Your task to perform on an android device: set default search engine in the chrome app Image 0: 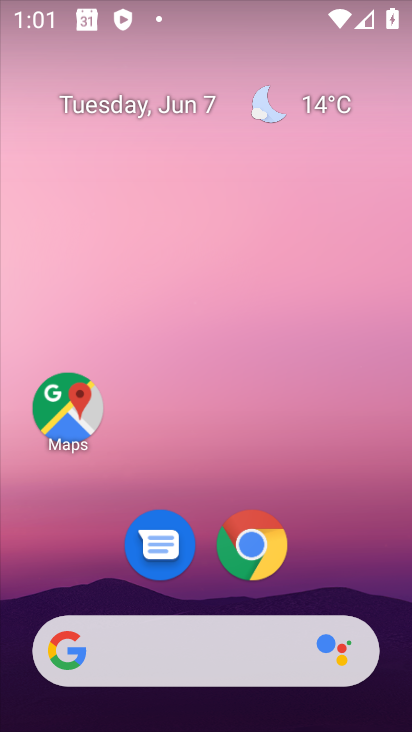
Step 0: drag from (351, 537) to (374, 219)
Your task to perform on an android device: set default search engine in the chrome app Image 1: 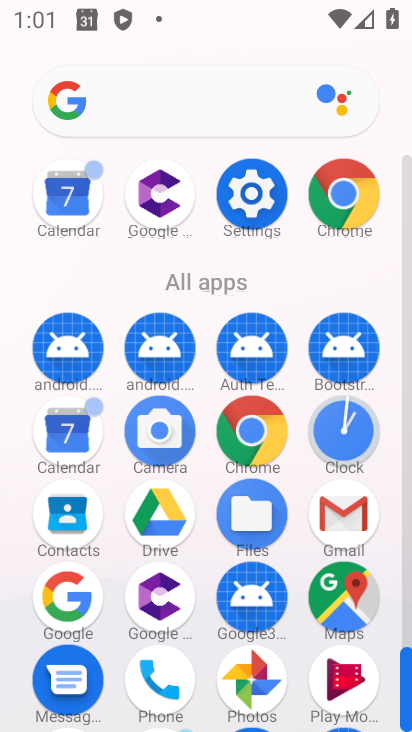
Step 1: click (255, 418)
Your task to perform on an android device: set default search engine in the chrome app Image 2: 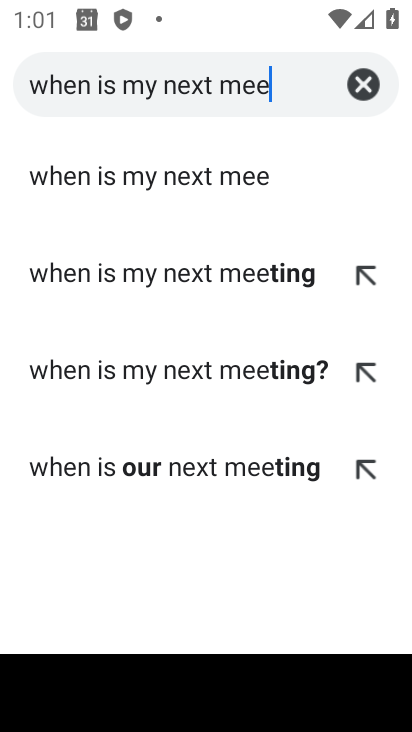
Step 2: click (371, 72)
Your task to perform on an android device: set default search engine in the chrome app Image 3: 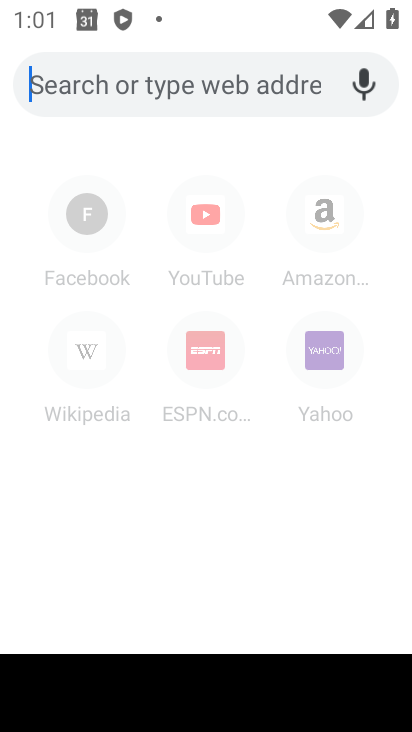
Step 3: press back button
Your task to perform on an android device: set default search engine in the chrome app Image 4: 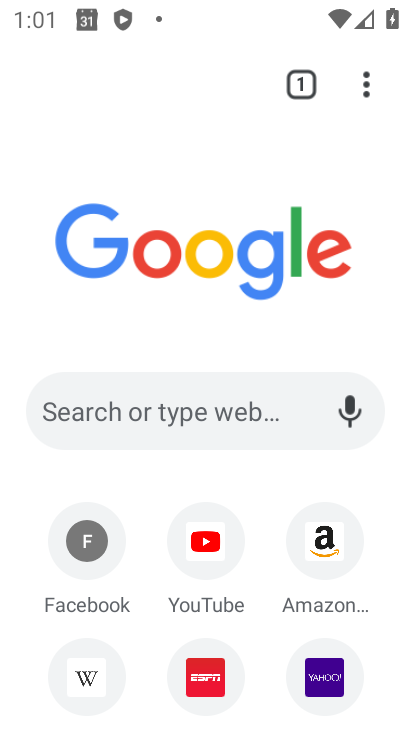
Step 4: drag from (383, 90) to (207, 601)
Your task to perform on an android device: set default search engine in the chrome app Image 5: 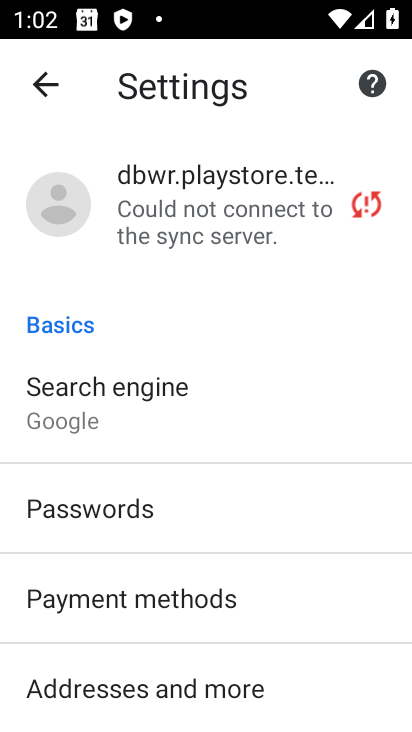
Step 5: click (150, 427)
Your task to perform on an android device: set default search engine in the chrome app Image 6: 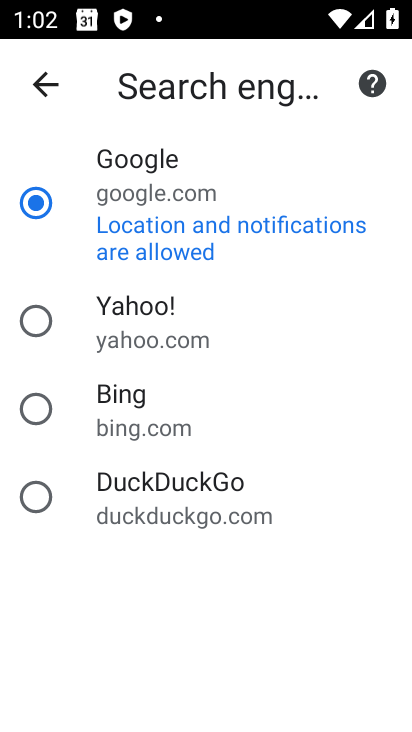
Step 6: click (42, 326)
Your task to perform on an android device: set default search engine in the chrome app Image 7: 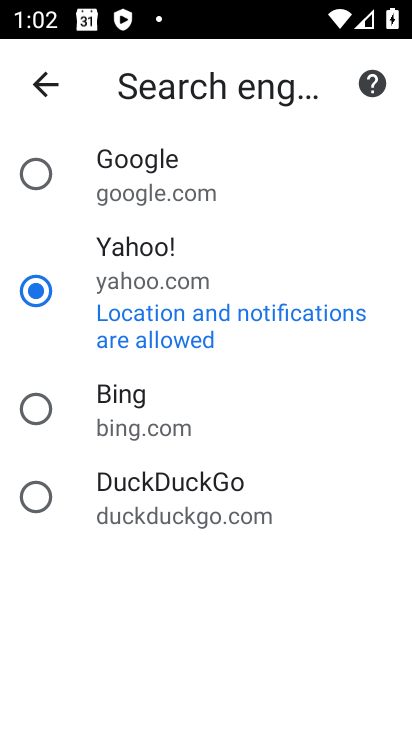
Step 7: task complete